Your task to perform on an android device: allow notifications from all sites in the chrome app Image 0: 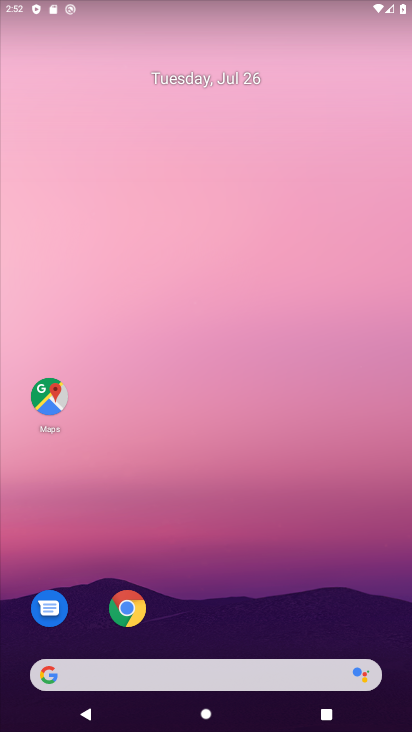
Step 0: click (133, 616)
Your task to perform on an android device: allow notifications from all sites in the chrome app Image 1: 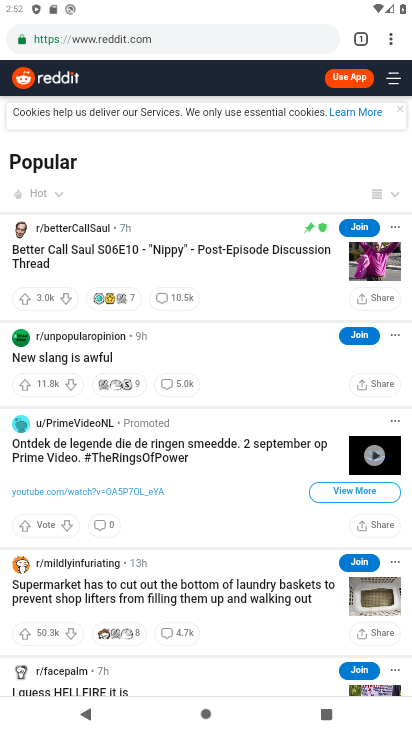
Step 1: click (396, 34)
Your task to perform on an android device: allow notifications from all sites in the chrome app Image 2: 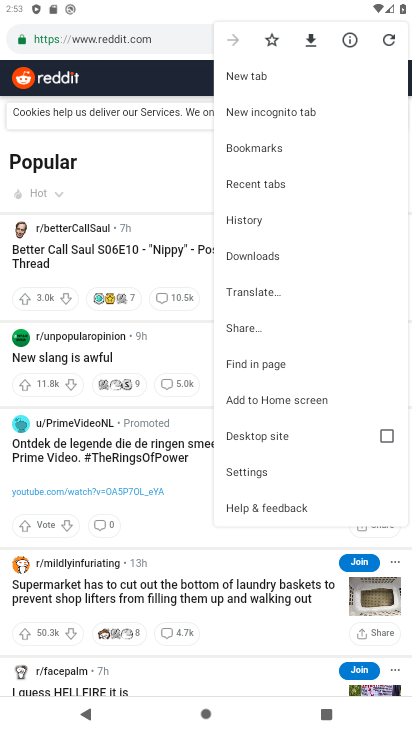
Step 2: click (251, 469)
Your task to perform on an android device: allow notifications from all sites in the chrome app Image 3: 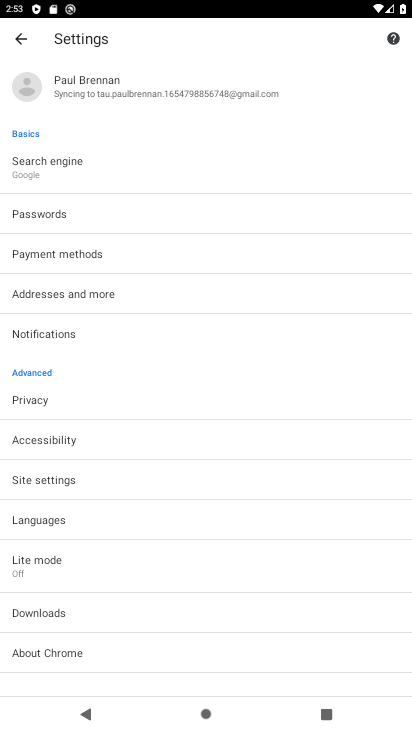
Step 3: click (60, 330)
Your task to perform on an android device: allow notifications from all sites in the chrome app Image 4: 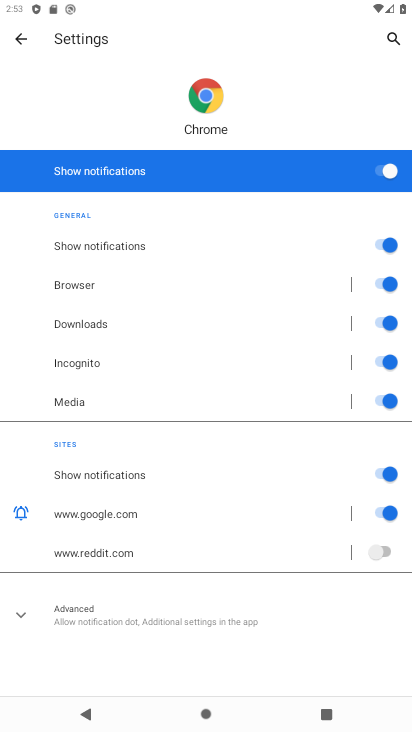
Step 4: task complete